Your task to perform on an android device: turn off notifications in google photos Image 0: 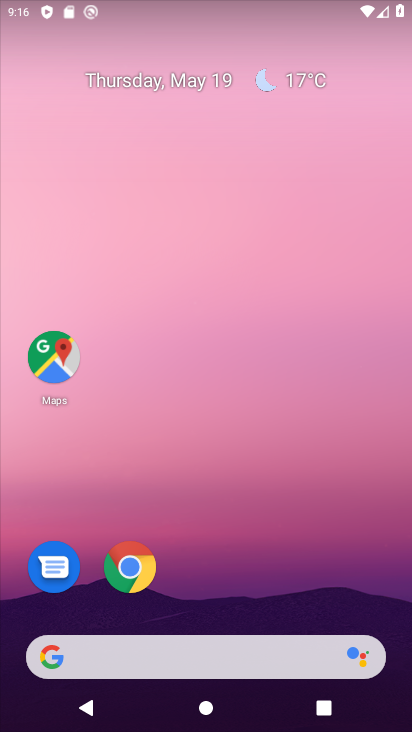
Step 0: drag from (383, 571) to (344, 153)
Your task to perform on an android device: turn off notifications in google photos Image 1: 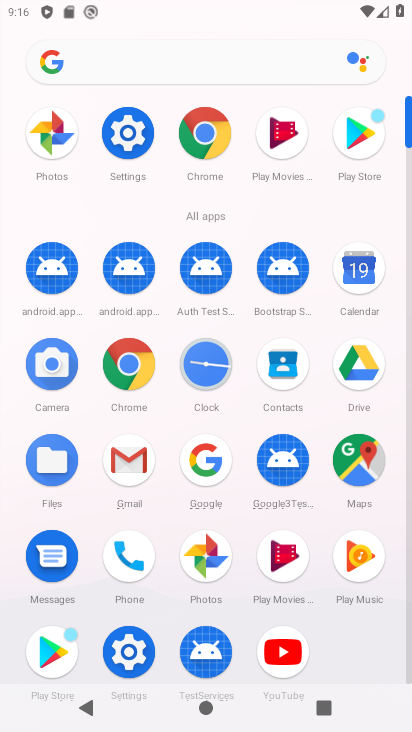
Step 1: click (199, 556)
Your task to perform on an android device: turn off notifications in google photos Image 2: 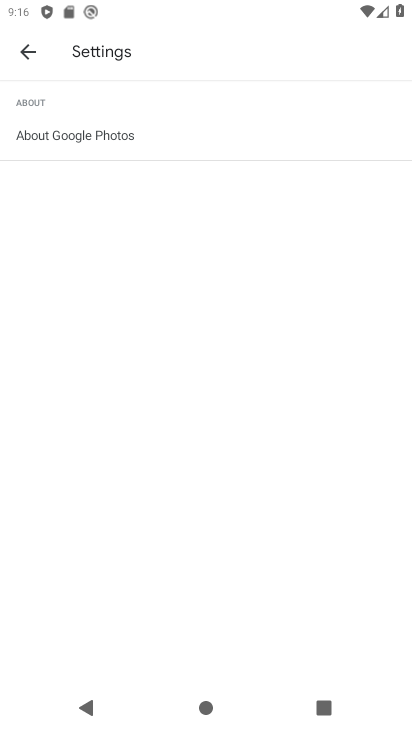
Step 2: press home button
Your task to perform on an android device: turn off notifications in google photos Image 3: 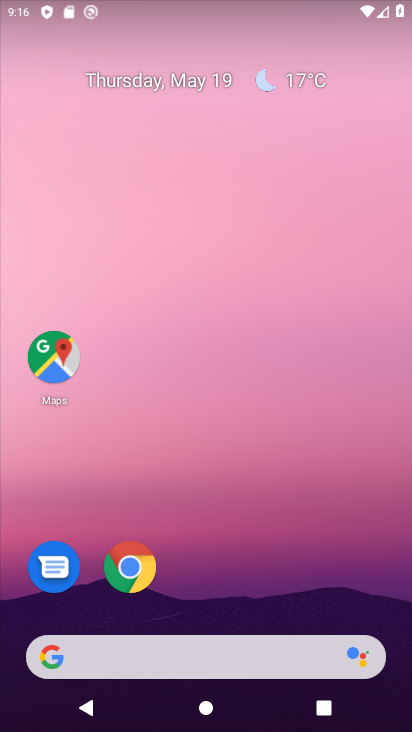
Step 3: drag from (315, 584) to (297, 241)
Your task to perform on an android device: turn off notifications in google photos Image 4: 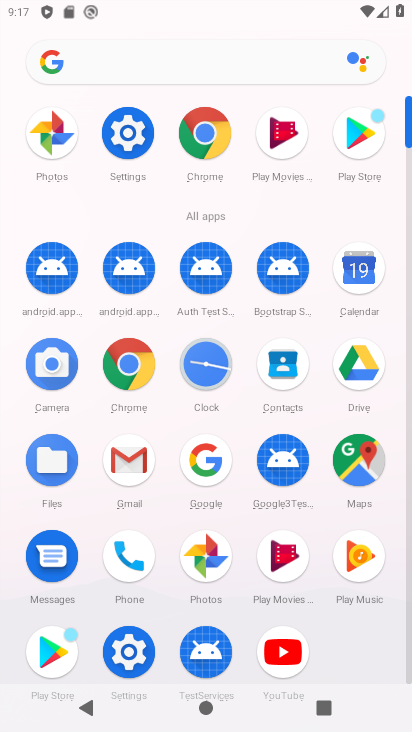
Step 4: click (216, 574)
Your task to perform on an android device: turn off notifications in google photos Image 5: 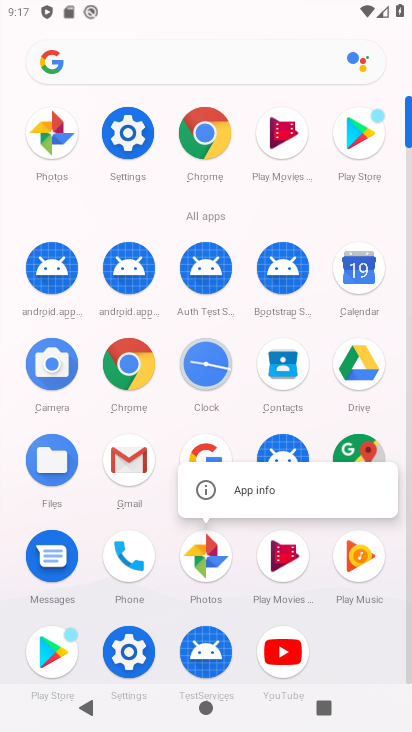
Step 5: click (246, 485)
Your task to perform on an android device: turn off notifications in google photos Image 6: 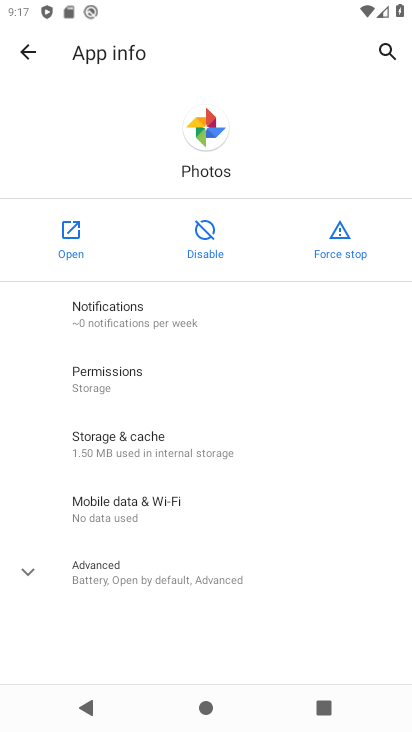
Step 6: click (102, 326)
Your task to perform on an android device: turn off notifications in google photos Image 7: 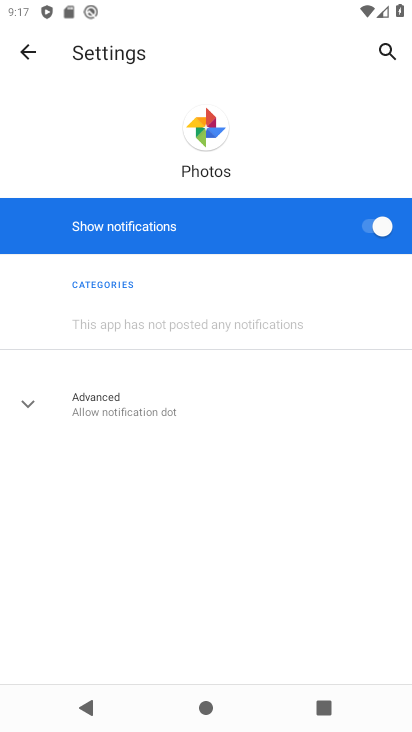
Step 7: click (376, 224)
Your task to perform on an android device: turn off notifications in google photos Image 8: 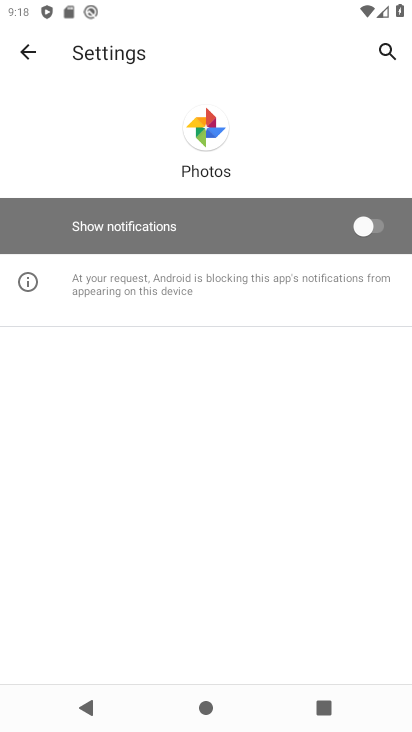
Step 8: task complete